Your task to perform on an android device: Do I have any events this weekend? Image 0: 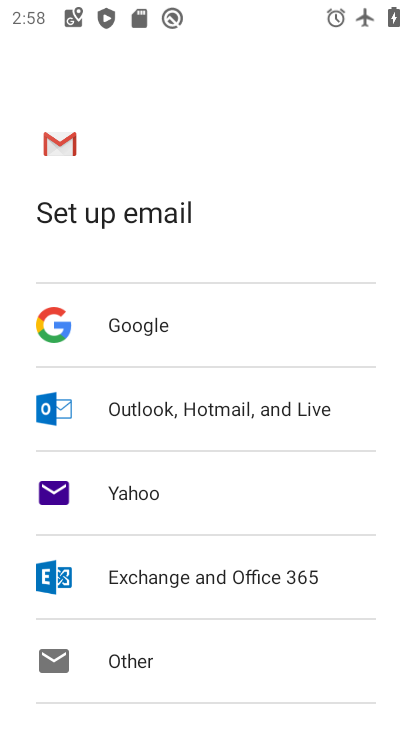
Step 0: press home button
Your task to perform on an android device: Do I have any events this weekend? Image 1: 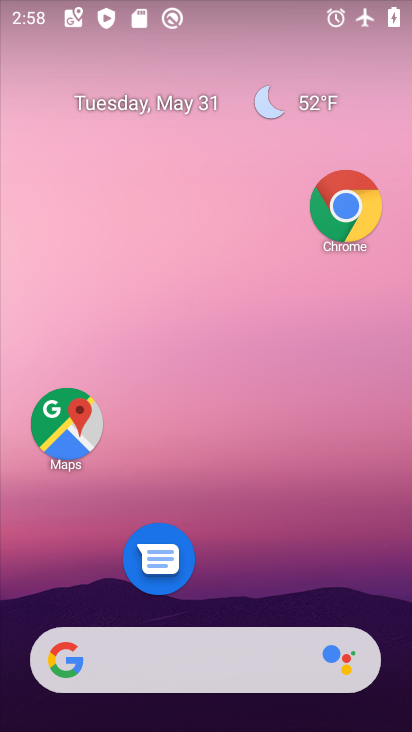
Step 1: drag from (201, 606) to (192, 44)
Your task to perform on an android device: Do I have any events this weekend? Image 2: 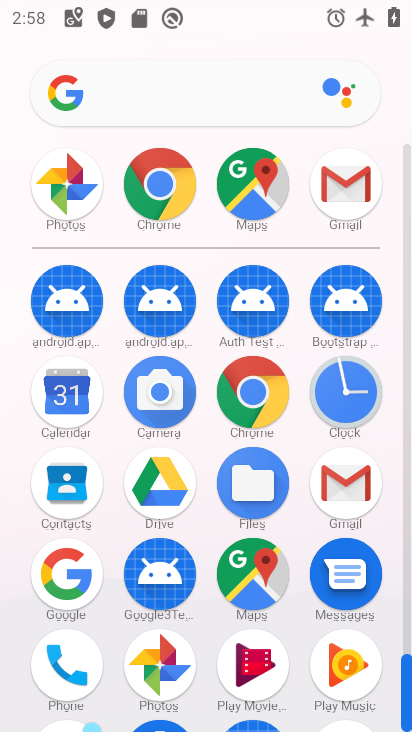
Step 2: click (69, 408)
Your task to perform on an android device: Do I have any events this weekend? Image 3: 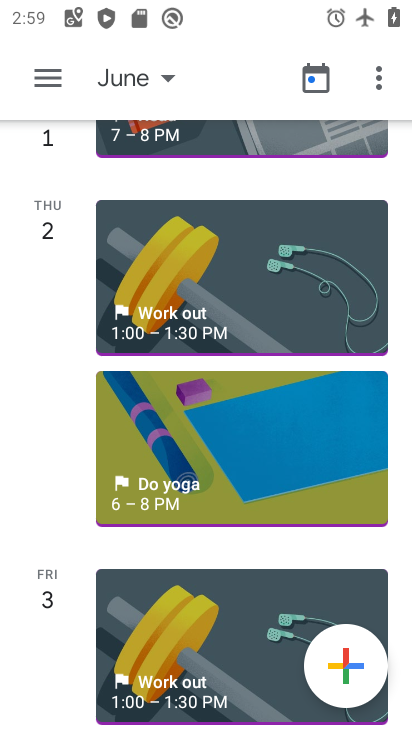
Step 3: task complete